Your task to perform on an android device: visit the assistant section in the google photos Image 0: 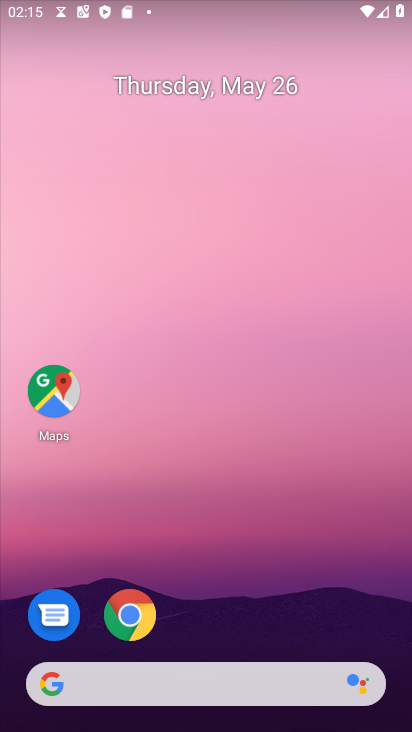
Step 0: drag from (217, 647) to (200, 27)
Your task to perform on an android device: visit the assistant section in the google photos Image 1: 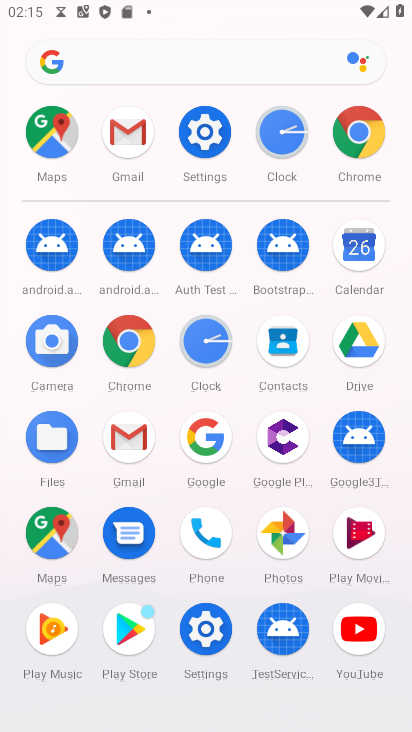
Step 1: click (280, 525)
Your task to perform on an android device: visit the assistant section in the google photos Image 2: 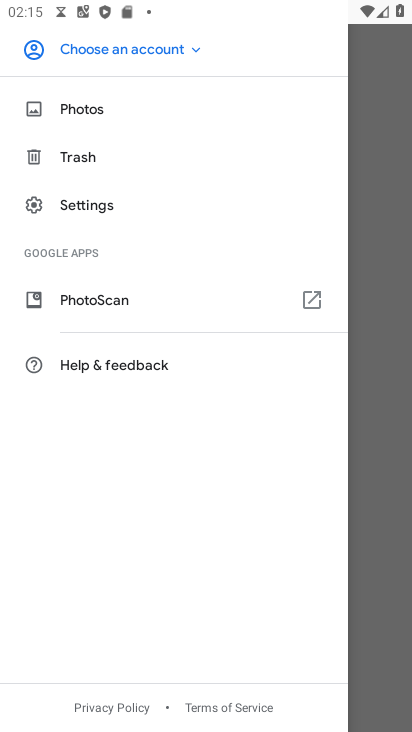
Step 2: click (194, 43)
Your task to perform on an android device: visit the assistant section in the google photos Image 3: 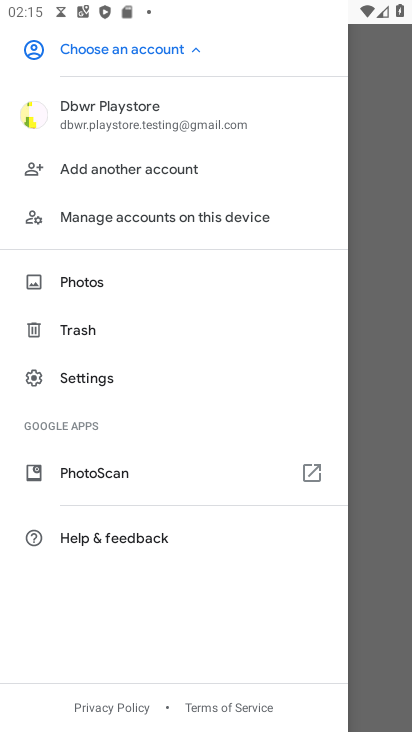
Step 3: click (124, 111)
Your task to perform on an android device: visit the assistant section in the google photos Image 4: 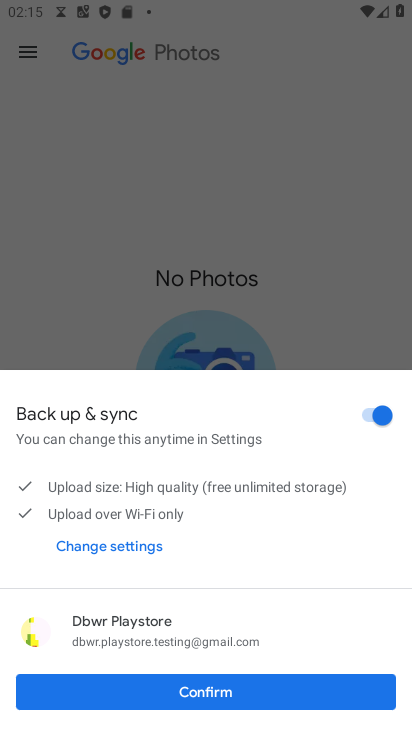
Step 4: click (212, 688)
Your task to perform on an android device: visit the assistant section in the google photos Image 5: 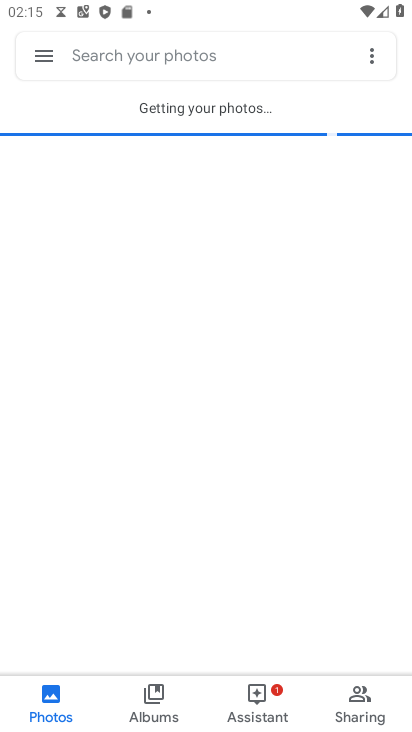
Step 5: click (256, 691)
Your task to perform on an android device: visit the assistant section in the google photos Image 6: 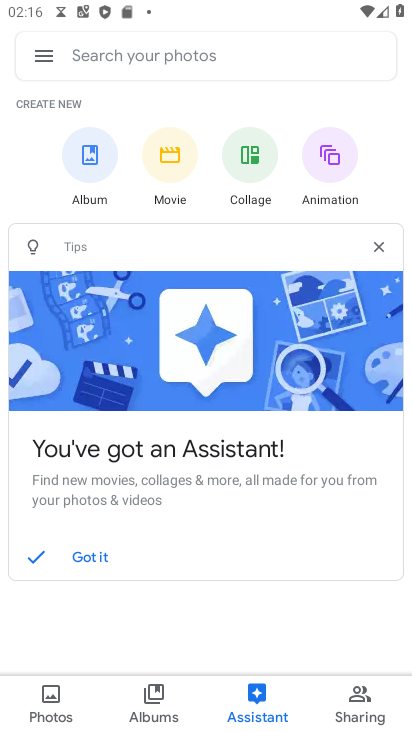
Step 6: task complete